Your task to perform on an android device: Open the map Image 0: 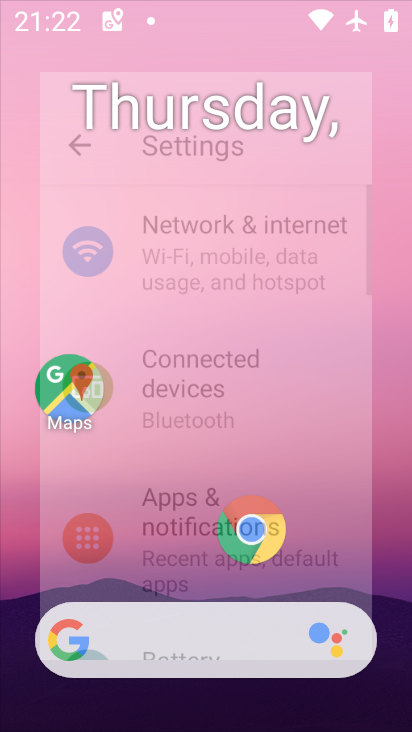
Step 0: press home button
Your task to perform on an android device: Open the map Image 1: 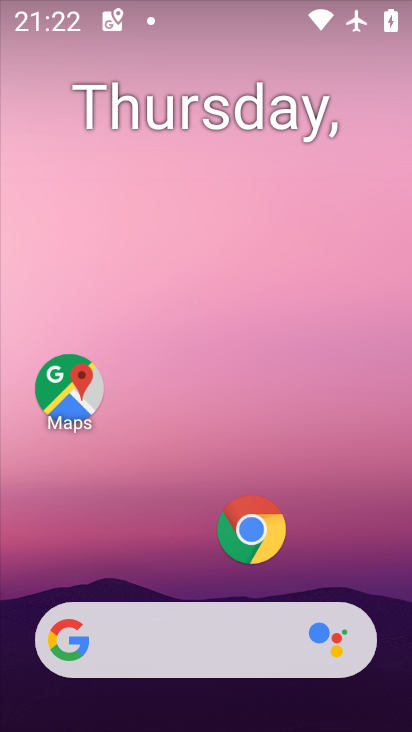
Step 1: click (70, 382)
Your task to perform on an android device: Open the map Image 2: 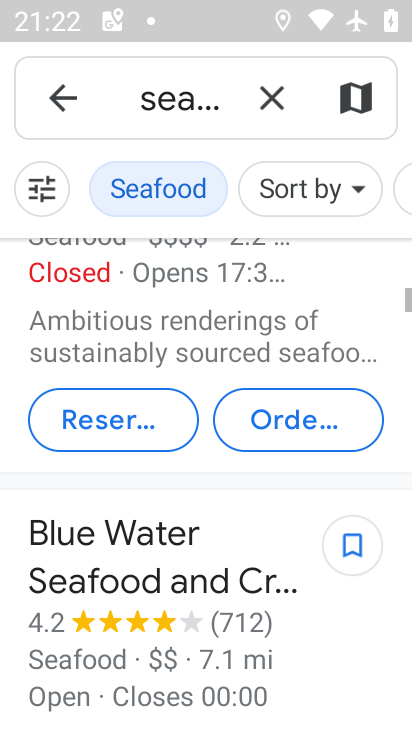
Step 2: click (270, 94)
Your task to perform on an android device: Open the map Image 3: 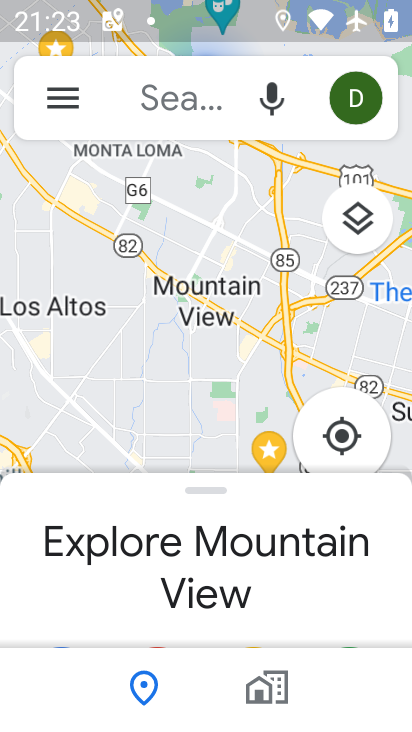
Step 3: task complete